Your task to perform on an android device: turn on airplane mode Image 0: 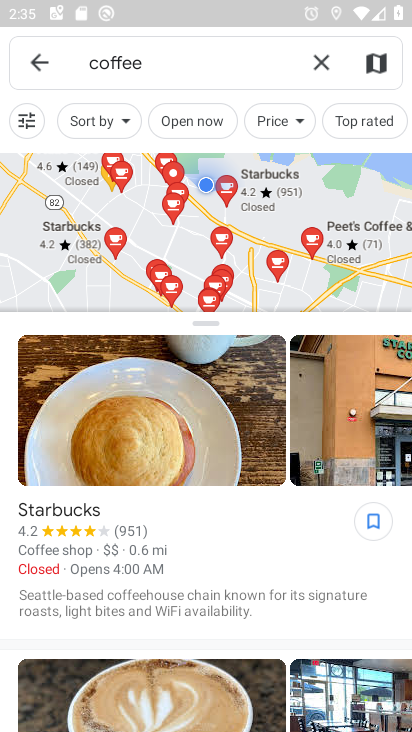
Step 0: press home button
Your task to perform on an android device: turn on airplane mode Image 1: 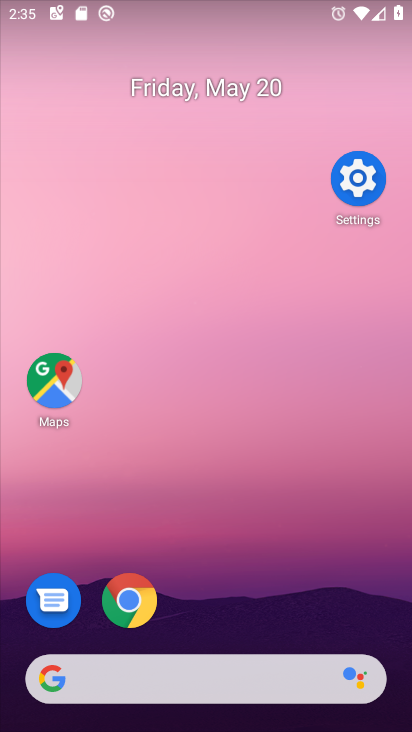
Step 1: drag from (189, 620) to (208, 77)
Your task to perform on an android device: turn on airplane mode Image 2: 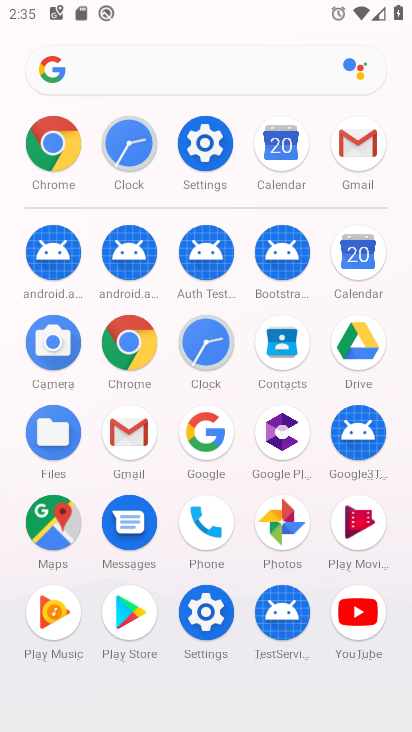
Step 2: click (214, 163)
Your task to perform on an android device: turn on airplane mode Image 3: 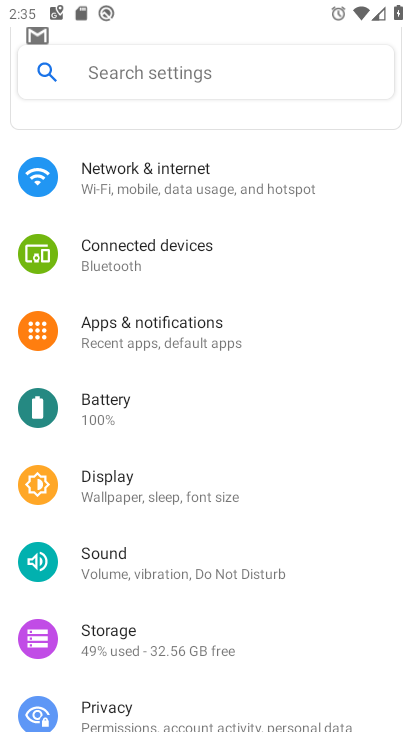
Step 3: click (182, 196)
Your task to perform on an android device: turn on airplane mode Image 4: 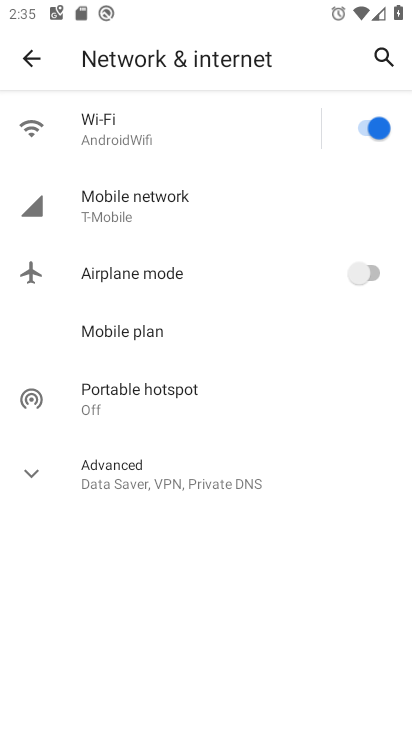
Step 4: click (385, 280)
Your task to perform on an android device: turn on airplane mode Image 5: 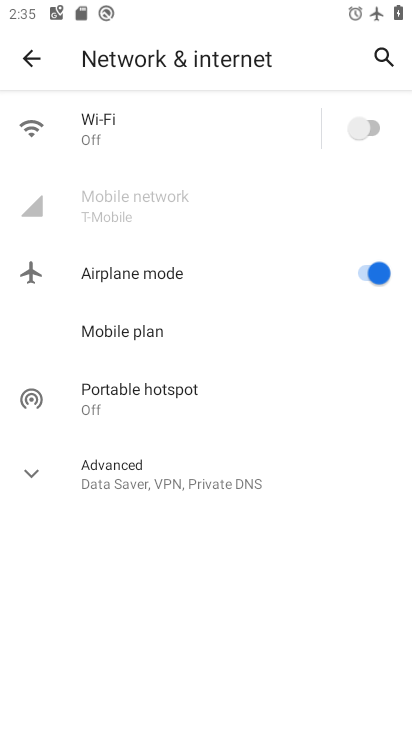
Step 5: task complete